Your task to perform on an android device: find photos in the google photos app Image 0: 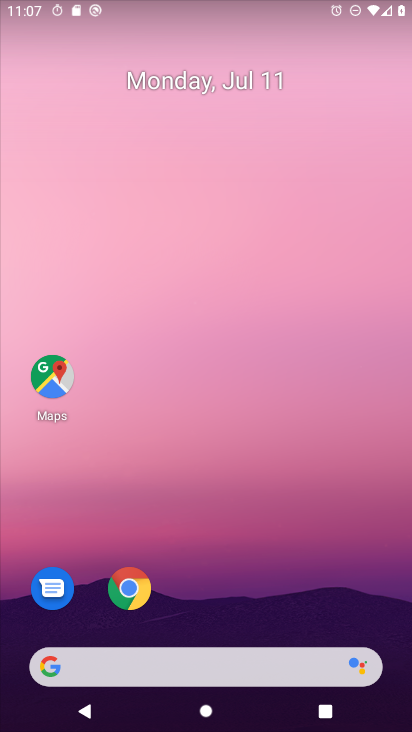
Step 0: drag from (206, 612) to (283, 60)
Your task to perform on an android device: find photos in the google photos app Image 1: 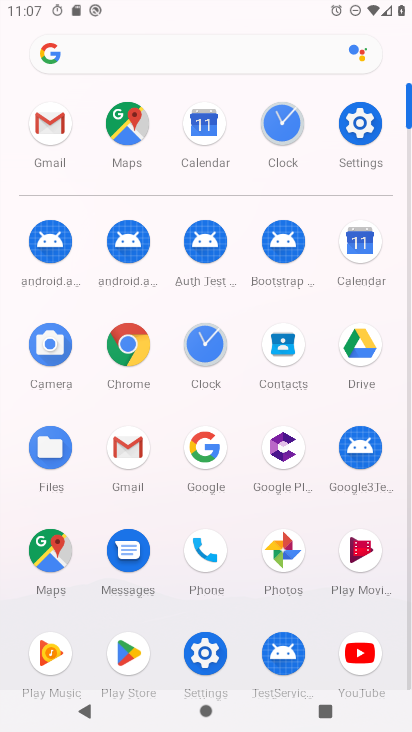
Step 1: click (270, 544)
Your task to perform on an android device: find photos in the google photos app Image 2: 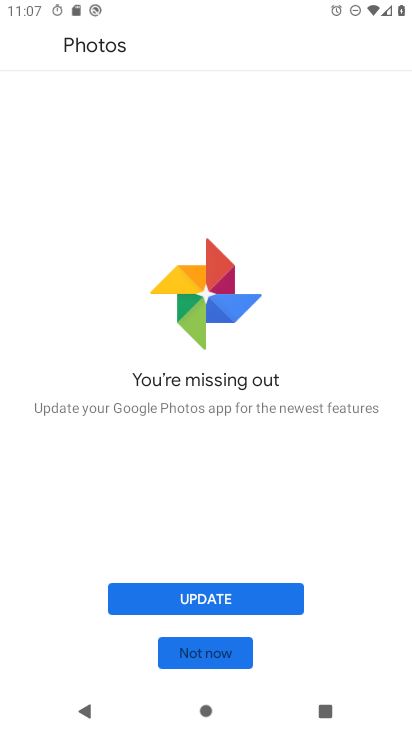
Step 2: press back button
Your task to perform on an android device: find photos in the google photos app Image 3: 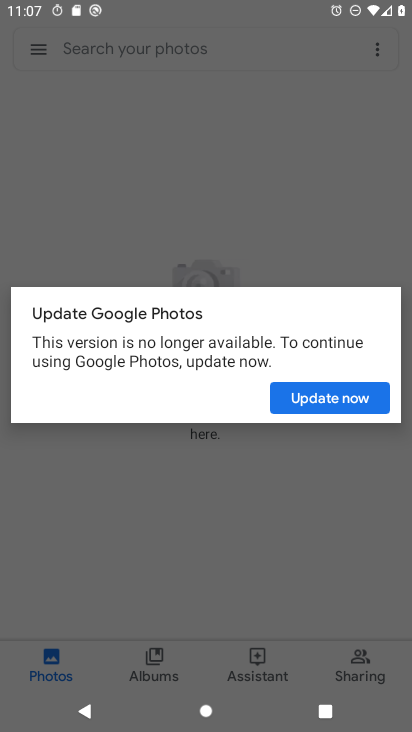
Step 3: click (316, 393)
Your task to perform on an android device: find photos in the google photos app Image 4: 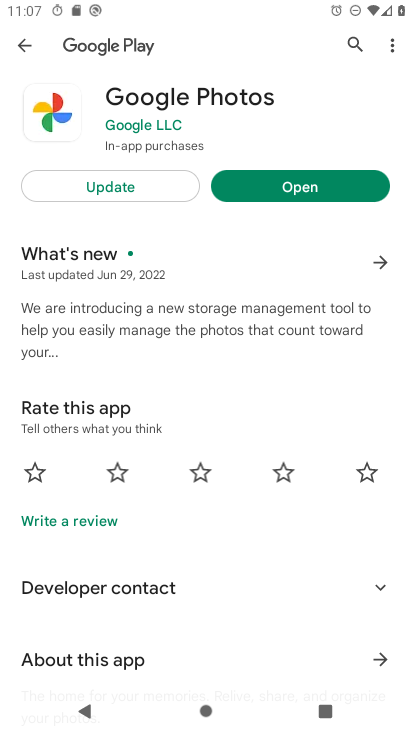
Step 4: click (249, 185)
Your task to perform on an android device: find photos in the google photos app Image 5: 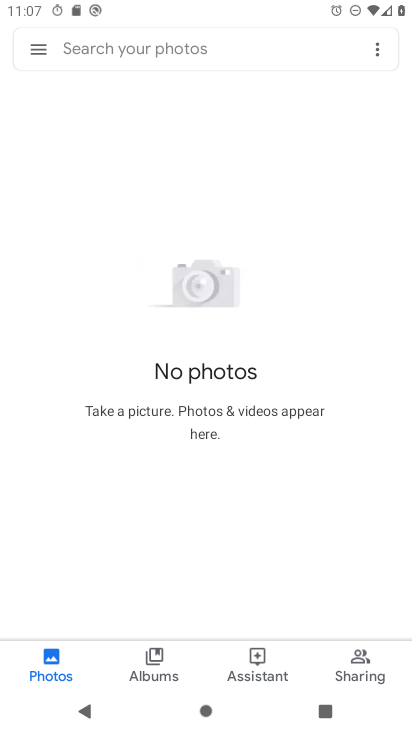
Step 5: click (50, 655)
Your task to perform on an android device: find photos in the google photos app Image 6: 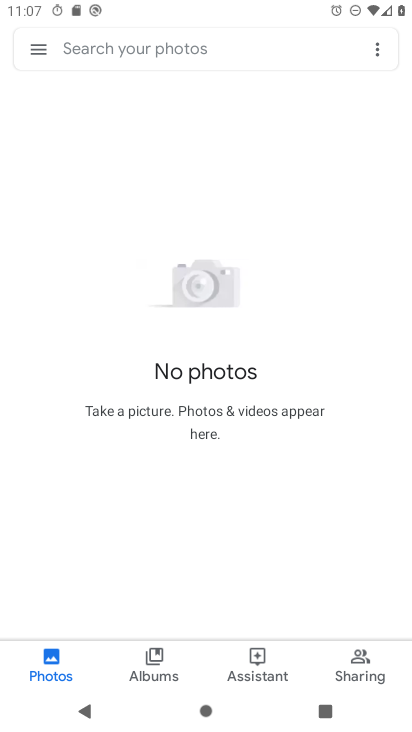
Step 6: task complete